Your task to perform on an android device: clear history in the chrome app Image 0: 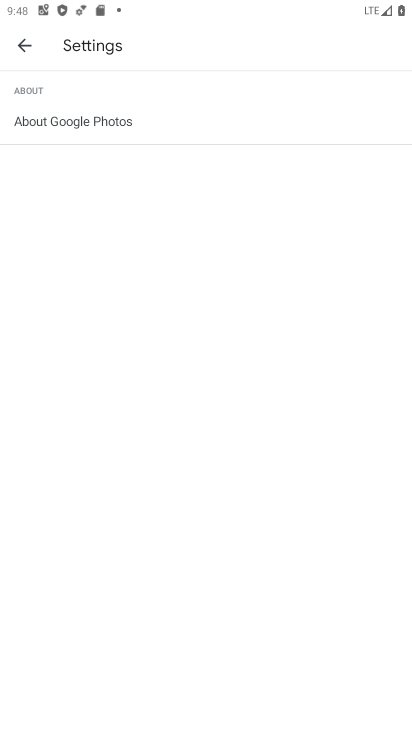
Step 0: press back button
Your task to perform on an android device: clear history in the chrome app Image 1: 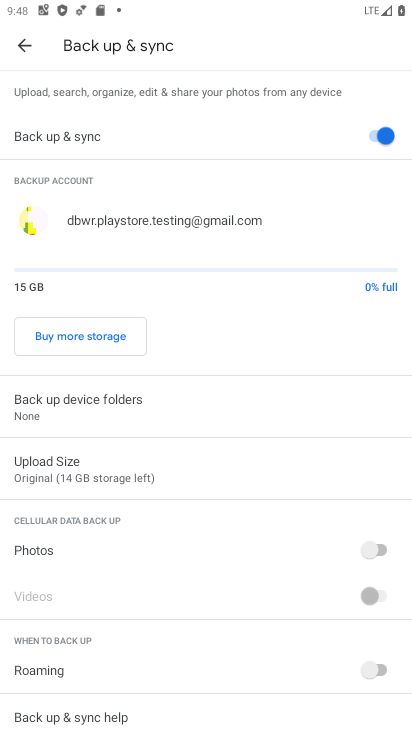
Step 1: press back button
Your task to perform on an android device: clear history in the chrome app Image 2: 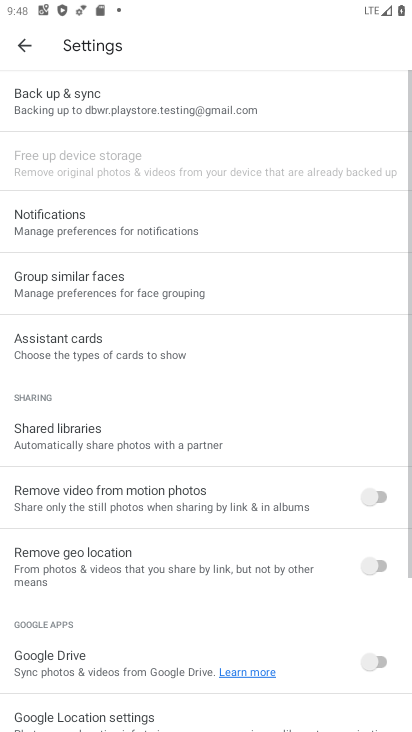
Step 2: press back button
Your task to perform on an android device: clear history in the chrome app Image 3: 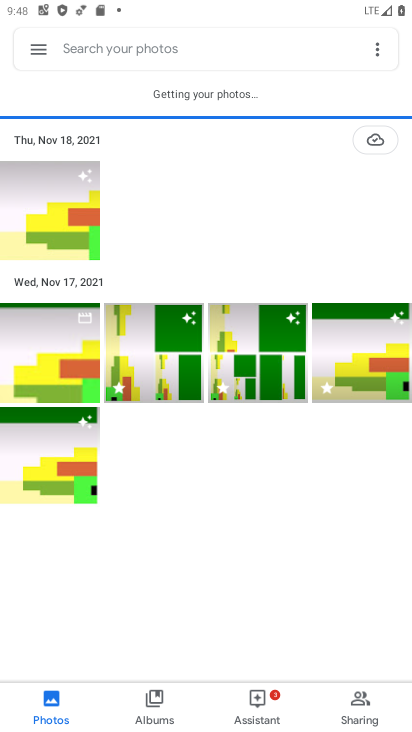
Step 3: press back button
Your task to perform on an android device: clear history in the chrome app Image 4: 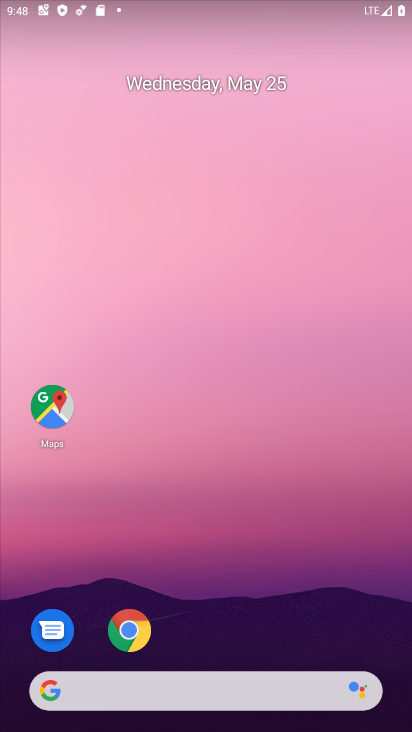
Step 4: click (121, 615)
Your task to perform on an android device: clear history in the chrome app Image 5: 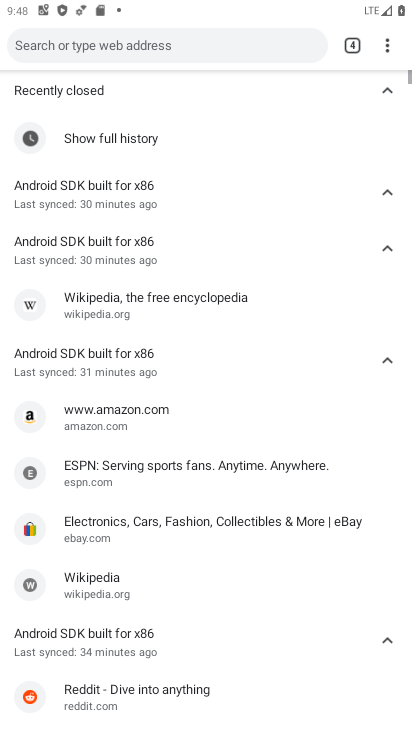
Step 5: drag from (382, 47) to (237, 257)
Your task to perform on an android device: clear history in the chrome app Image 6: 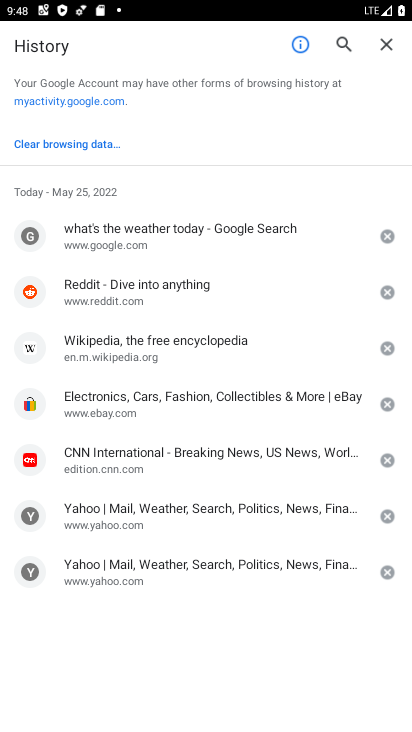
Step 6: click (90, 144)
Your task to perform on an android device: clear history in the chrome app Image 7: 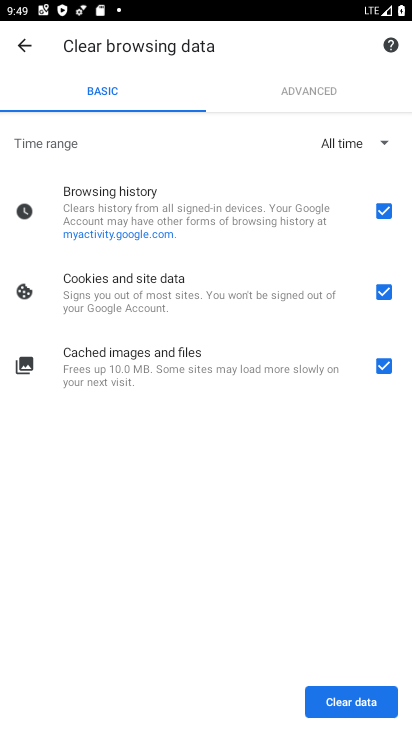
Step 7: click (351, 695)
Your task to perform on an android device: clear history in the chrome app Image 8: 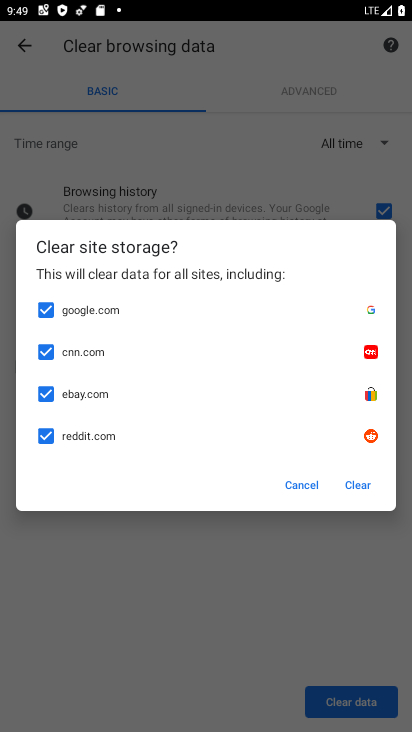
Step 8: click (349, 481)
Your task to perform on an android device: clear history in the chrome app Image 9: 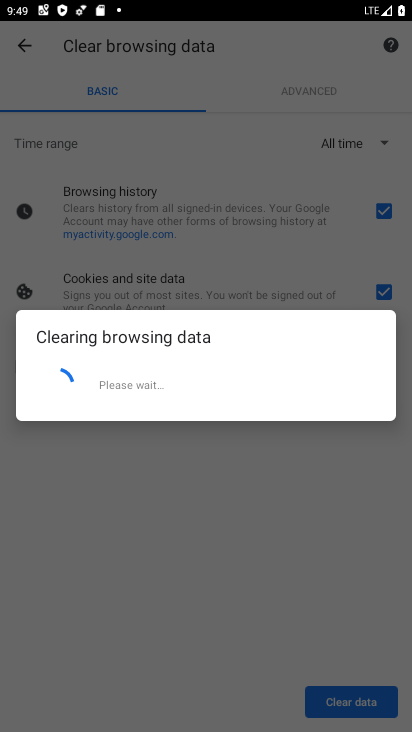
Step 9: task complete